Your task to perform on an android device: clear history in the chrome app Image 0: 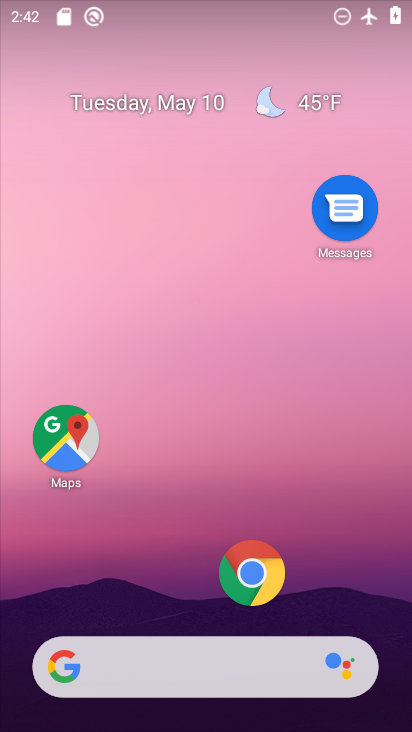
Step 0: drag from (198, 613) to (254, 10)
Your task to perform on an android device: clear history in the chrome app Image 1: 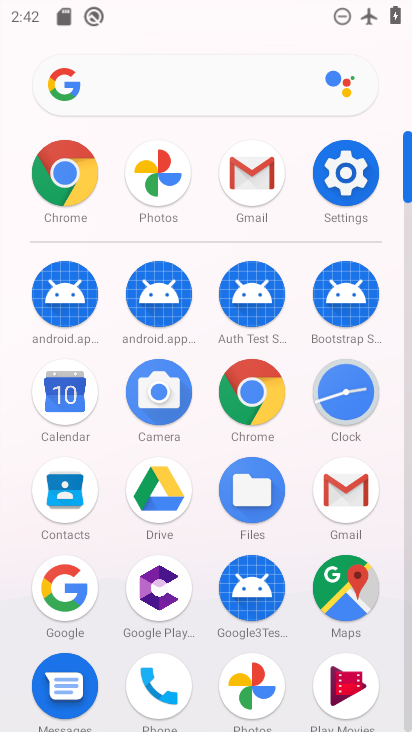
Step 1: click (237, 369)
Your task to perform on an android device: clear history in the chrome app Image 2: 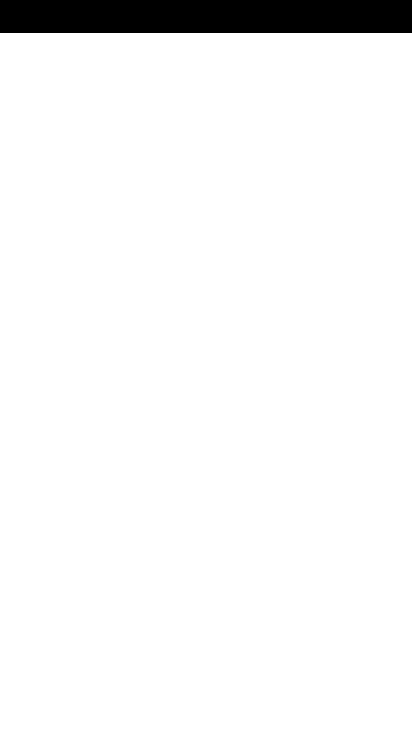
Step 2: click (251, 375)
Your task to perform on an android device: clear history in the chrome app Image 3: 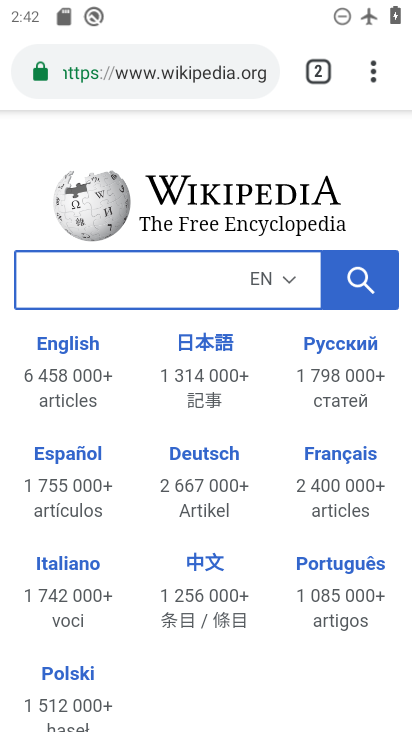
Step 3: drag from (347, 180) to (311, 546)
Your task to perform on an android device: clear history in the chrome app Image 4: 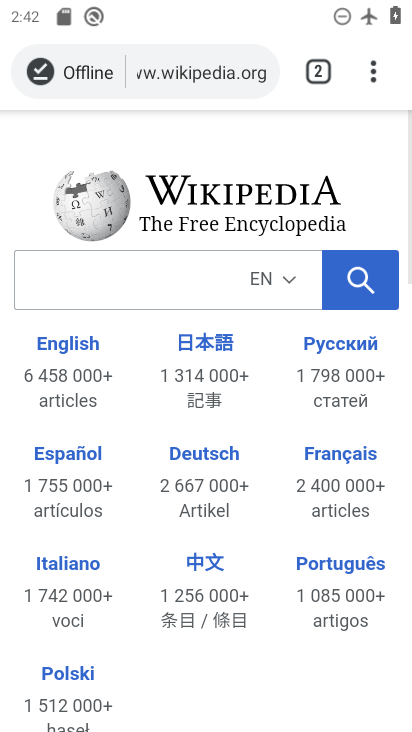
Step 4: click (371, 61)
Your task to perform on an android device: clear history in the chrome app Image 5: 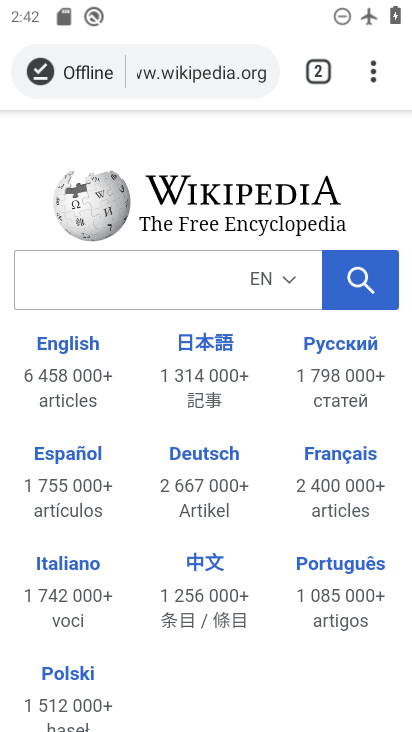
Step 5: click (378, 70)
Your task to perform on an android device: clear history in the chrome app Image 6: 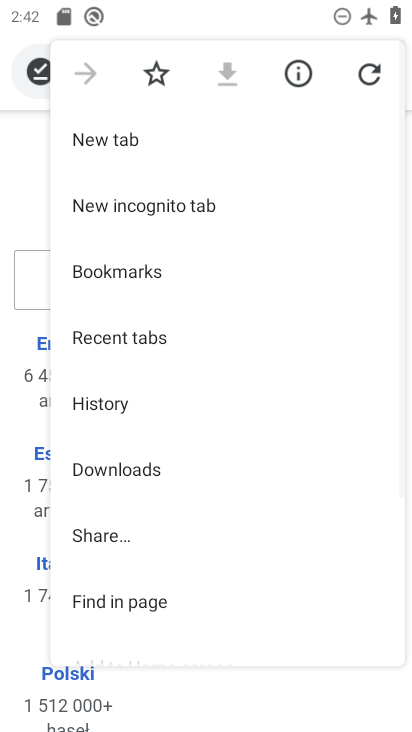
Step 6: drag from (133, 625) to (242, 151)
Your task to perform on an android device: clear history in the chrome app Image 7: 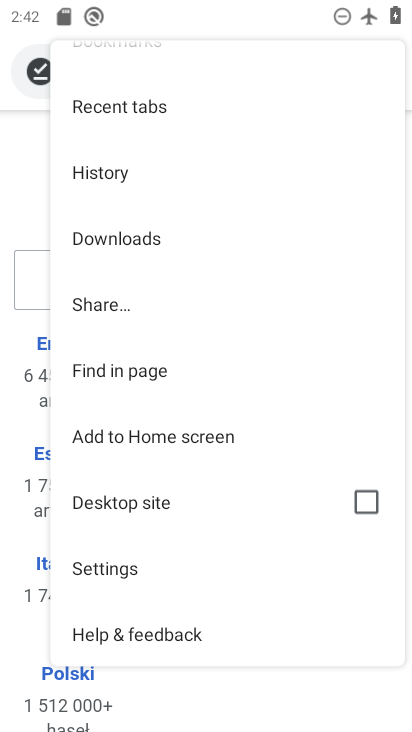
Step 7: click (140, 563)
Your task to perform on an android device: clear history in the chrome app Image 8: 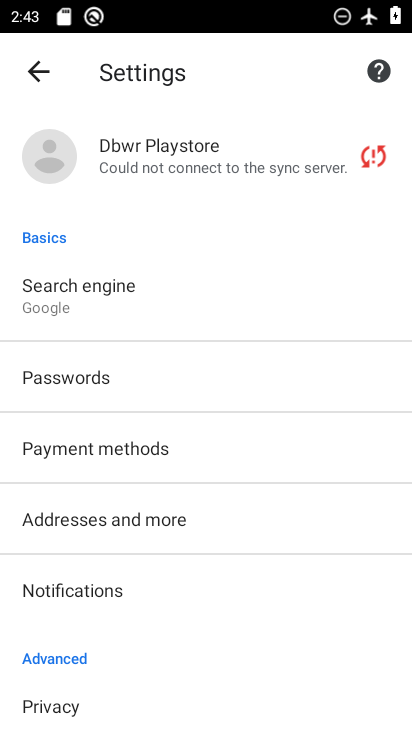
Step 8: click (46, 80)
Your task to perform on an android device: clear history in the chrome app Image 9: 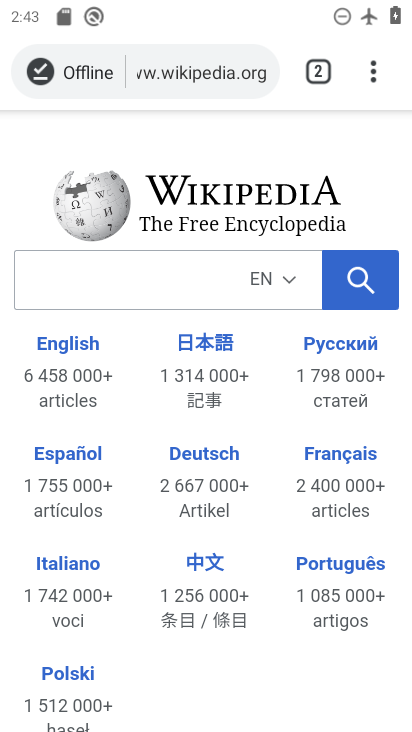
Step 9: click (377, 70)
Your task to perform on an android device: clear history in the chrome app Image 10: 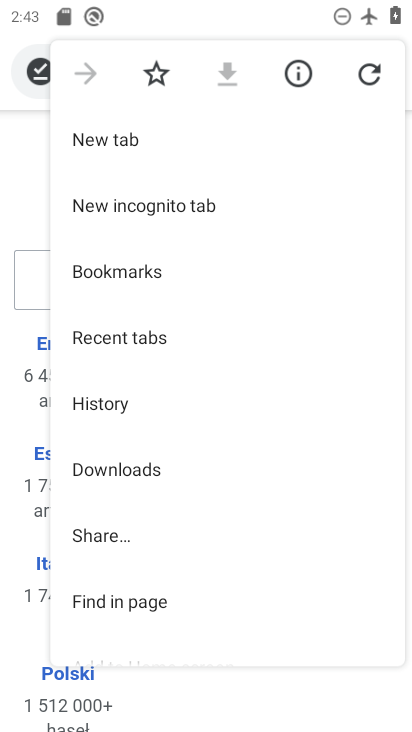
Step 10: click (168, 407)
Your task to perform on an android device: clear history in the chrome app Image 11: 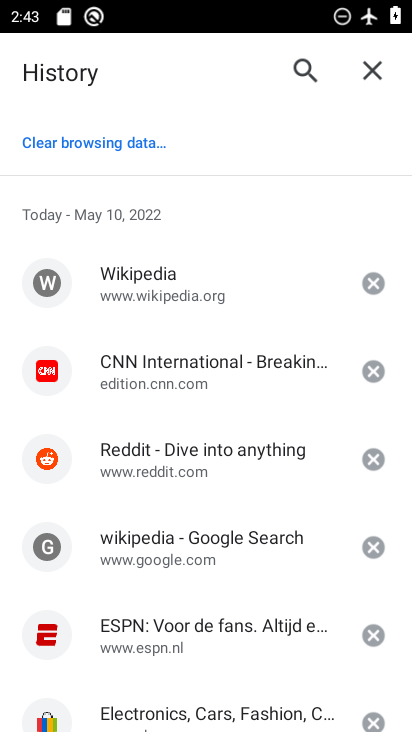
Step 11: click (57, 136)
Your task to perform on an android device: clear history in the chrome app Image 12: 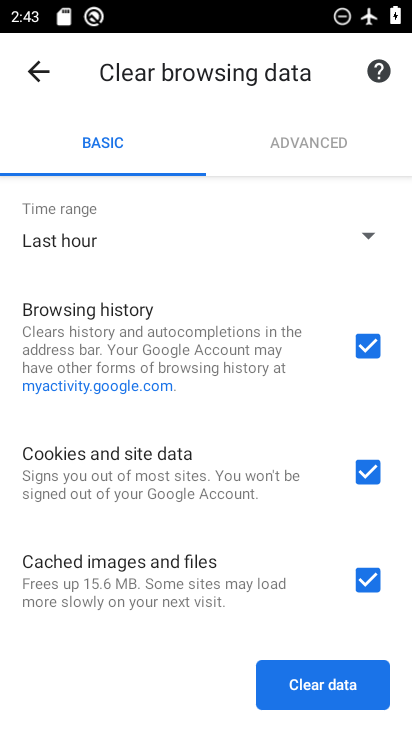
Step 12: click (293, 687)
Your task to perform on an android device: clear history in the chrome app Image 13: 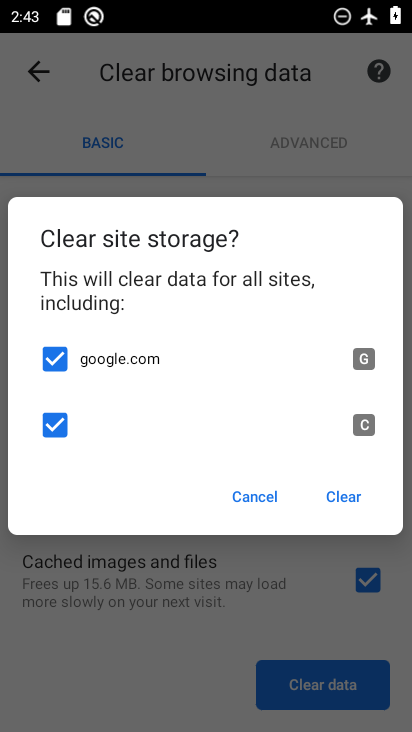
Step 13: click (356, 483)
Your task to perform on an android device: clear history in the chrome app Image 14: 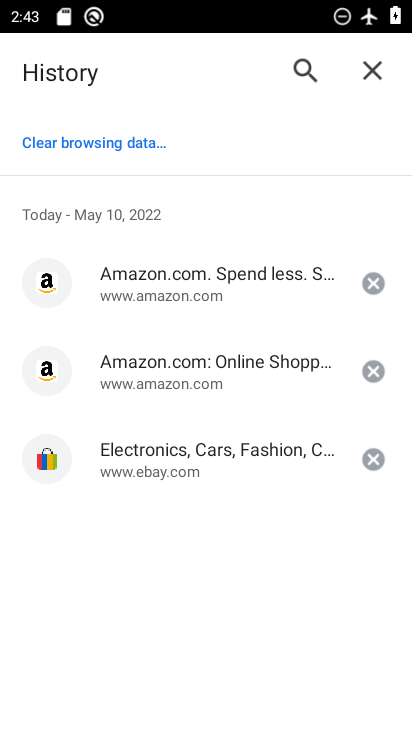
Step 14: drag from (274, 568) to (316, 331)
Your task to perform on an android device: clear history in the chrome app Image 15: 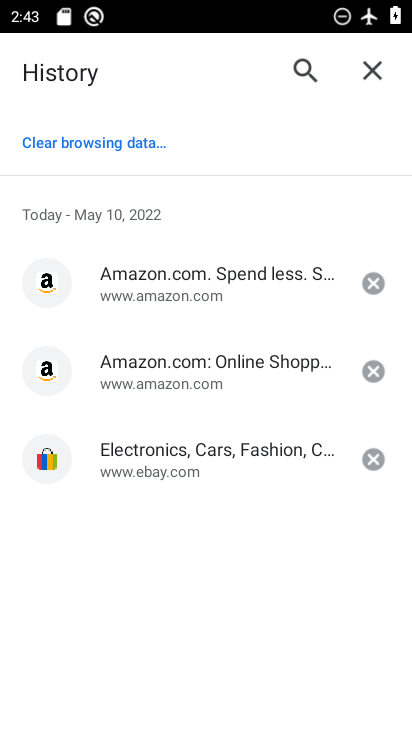
Step 15: click (371, 284)
Your task to perform on an android device: clear history in the chrome app Image 16: 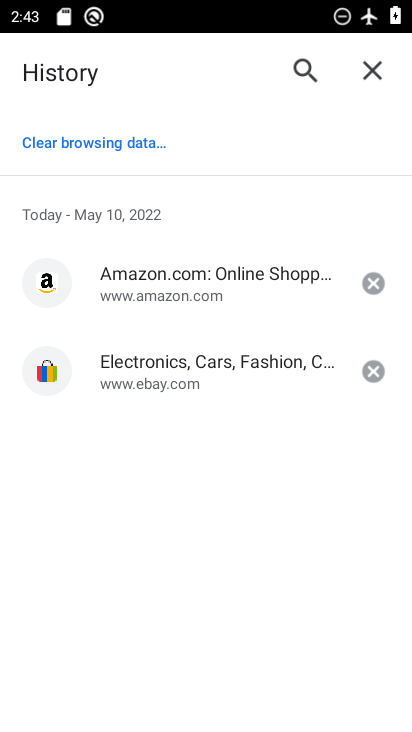
Step 16: click (376, 292)
Your task to perform on an android device: clear history in the chrome app Image 17: 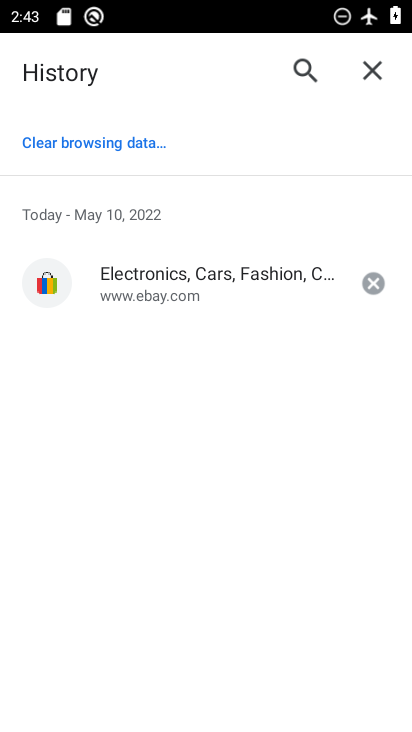
Step 17: click (376, 293)
Your task to perform on an android device: clear history in the chrome app Image 18: 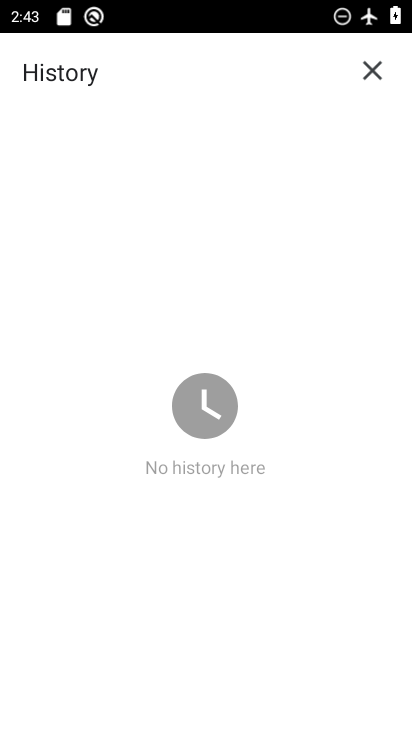
Step 18: drag from (282, 512) to (330, 324)
Your task to perform on an android device: clear history in the chrome app Image 19: 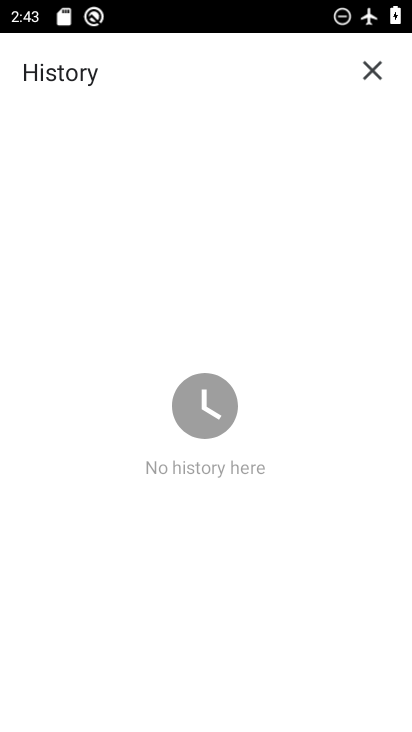
Step 19: click (350, 677)
Your task to perform on an android device: clear history in the chrome app Image 20: 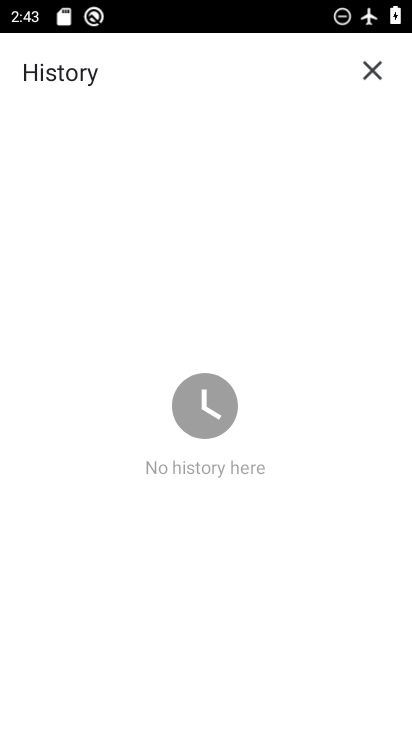
Step 20: task complete